Your task to perform on an android device: open device folders in google photos Image 0: 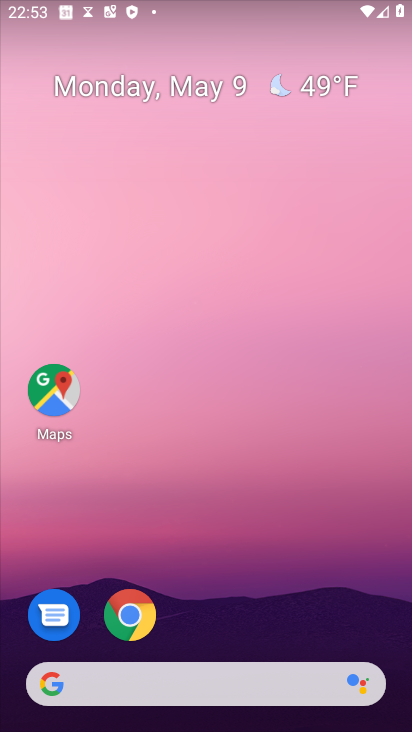
Step 0: drag from (227, 565) to (250, 125)
Your task to perform on an android device: open device folders in google photos Image 1: 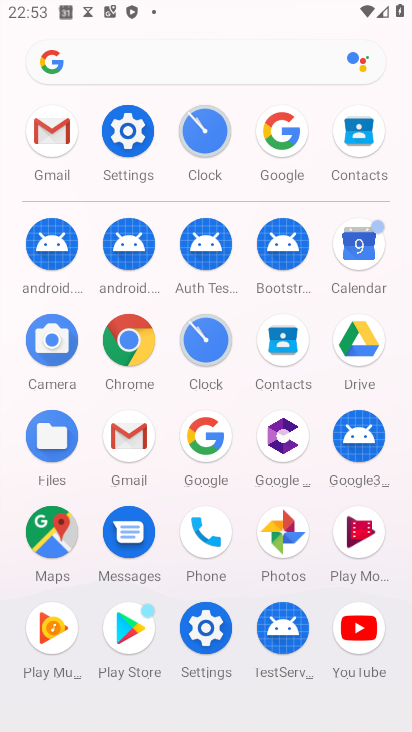
Step 1: click (287, 526)
Your task to perform on an android device: open device folders in google photos Image 2: 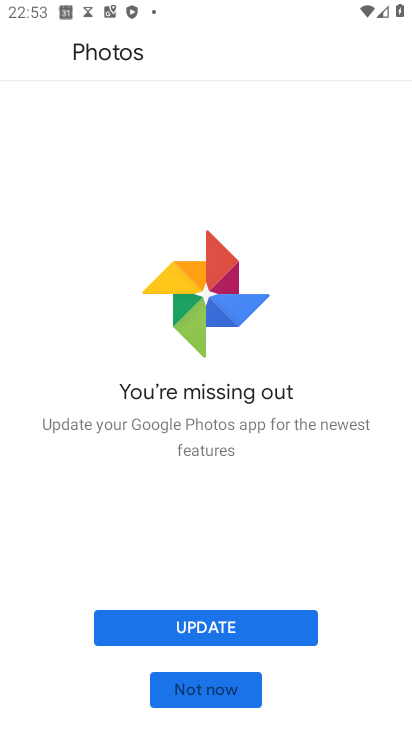
Step 2: click (244, 621)
Your task to perform on an android device: open device folders in google photos Image 3: 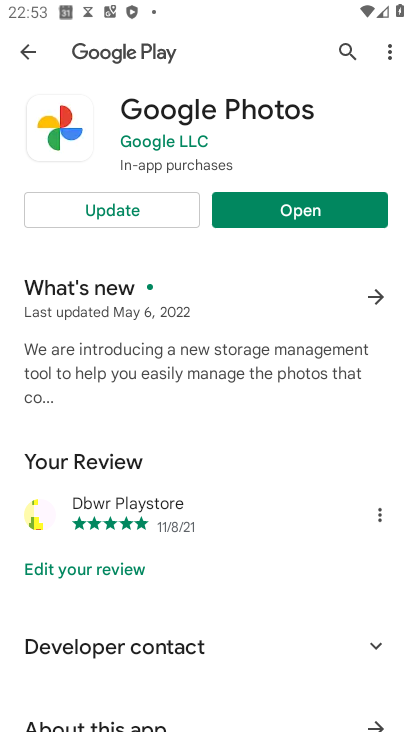
Step 3: click (123, 210)
Your task to perform on an android device: open device folders in google photos Image 4: 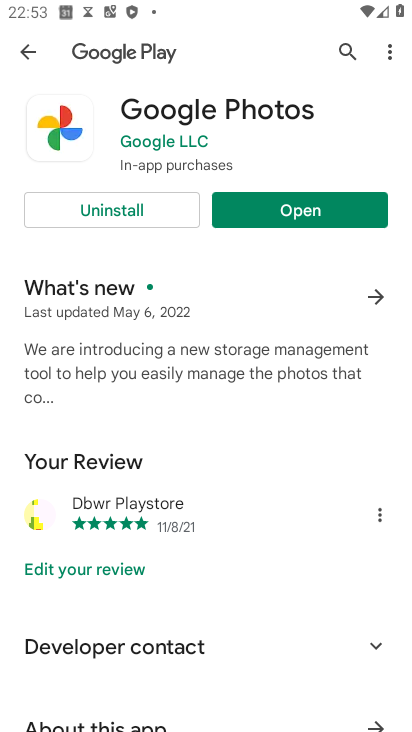
Step 4: click (287, 221)
Your task to perform on an android device: open device folders in google photos Image 5: 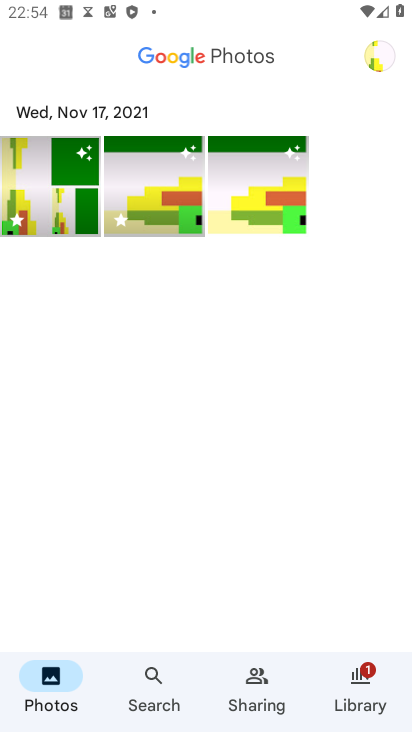
Step 5: click (165, 677)
Your task to perform on an android device: open device folders in google photos Image 6: 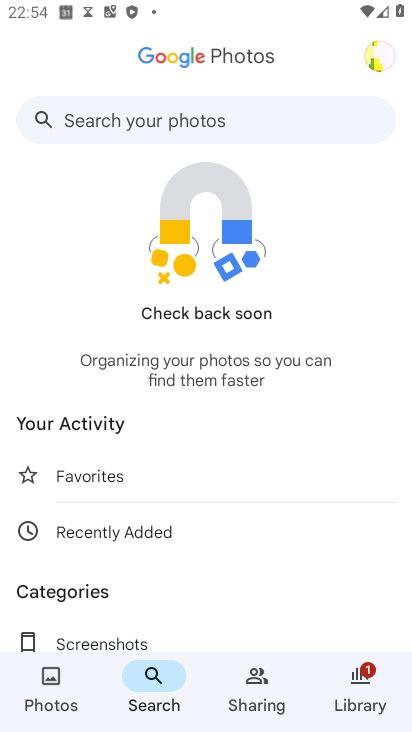
Step 6: click (120, 112)
Your task to perform on an android device: open device folders in google photos Image 7: 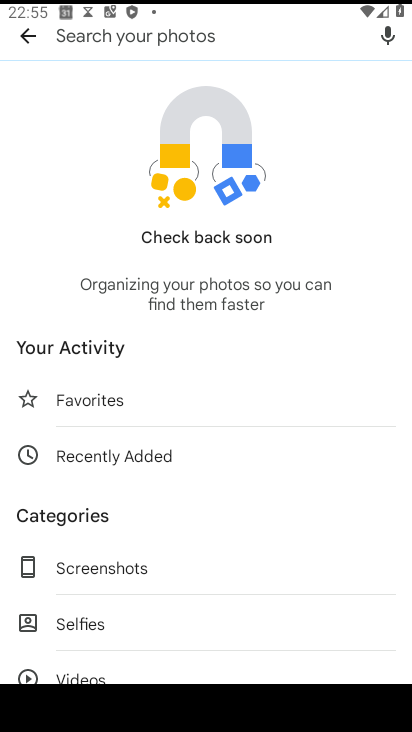
Step 7: drag from (166, 586) to (194, 660)
Your task to perform on an android device: open device folders in google photos Image 8: 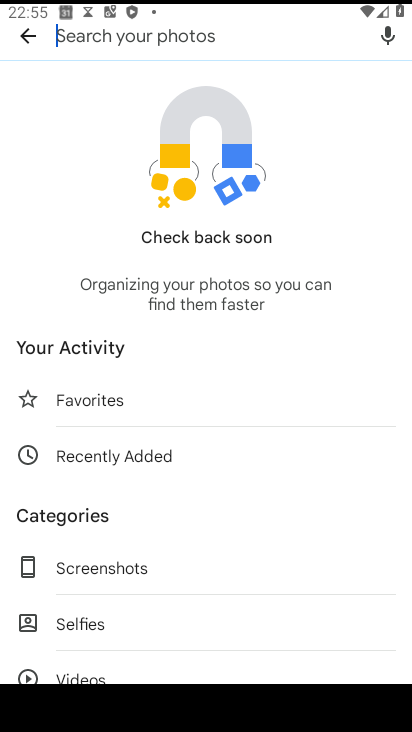
Step 8: click (156, 30)
Your task to perform on an android device: open device folders in google photos Image 9: 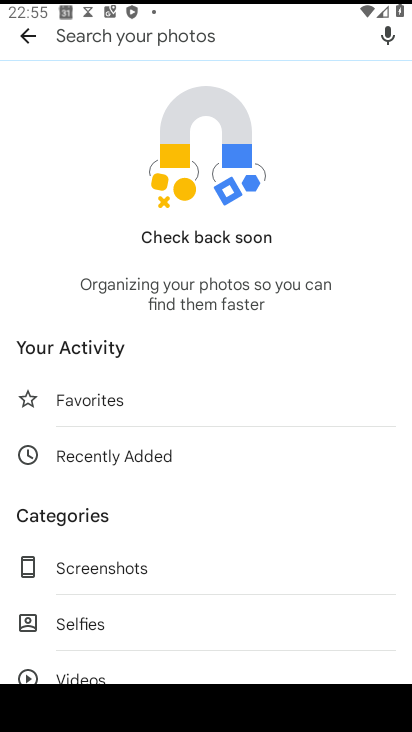
Step 9: type "device folders"
Your task to perform on an android device: open device folders in google photos Image 10: 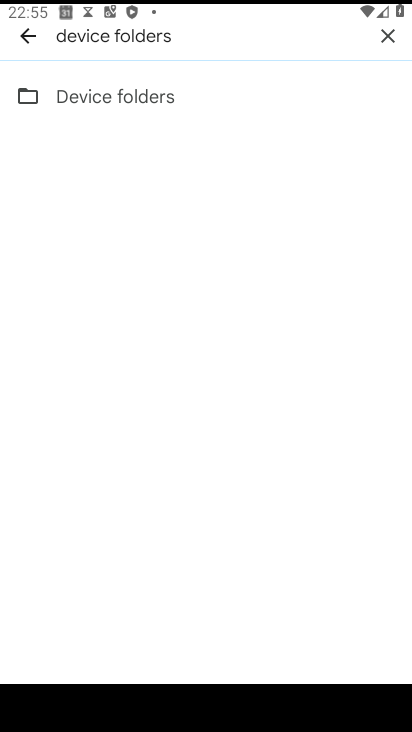
Step 10: click (109, 104)
Your task to perform on an android device: open device folders in google photos Image 11: 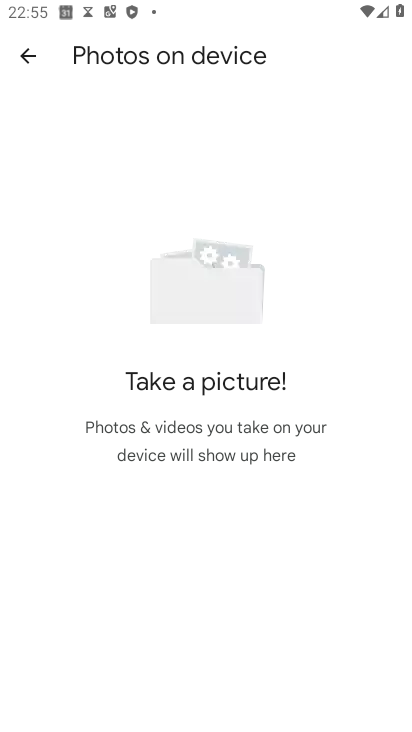
Step 11: task complete